Your task to perform on an android device: What's the weather going to be tomorrow? Image 0: 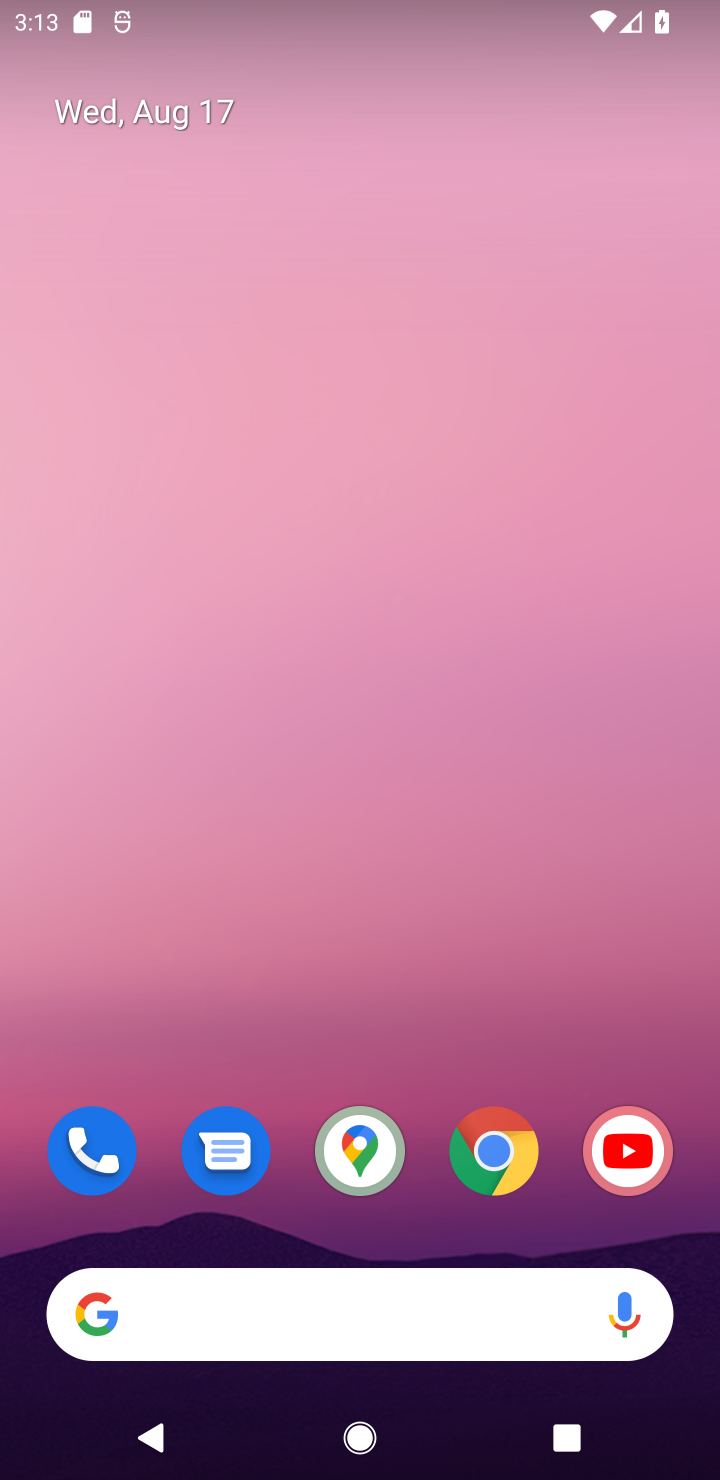
Step 0: click (284, 1310)
Your task to perform on an android device: What's the weather going to be tomorrow? Image 1: 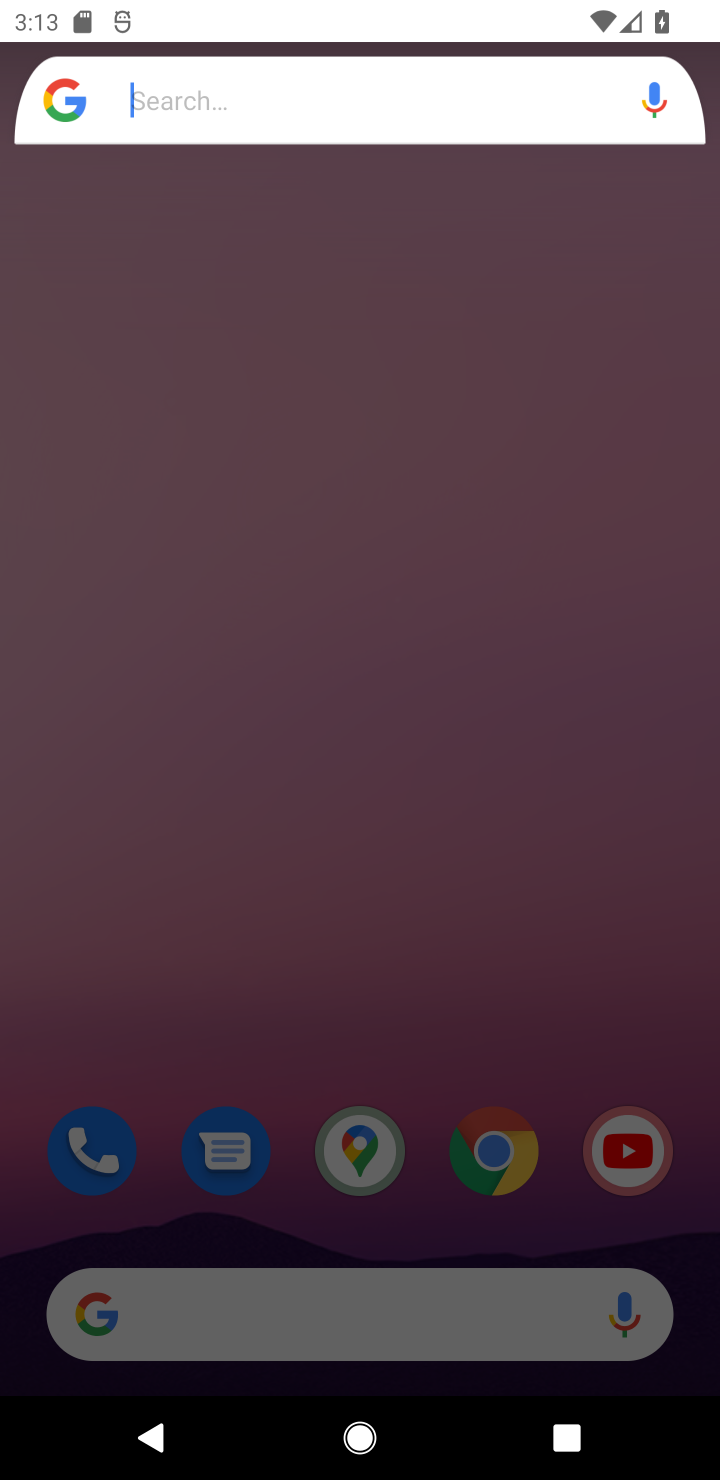
Step 1: click (284, 1310)
Your task to perform on an android device: What's the weather going to be tomorrow? Image 2: 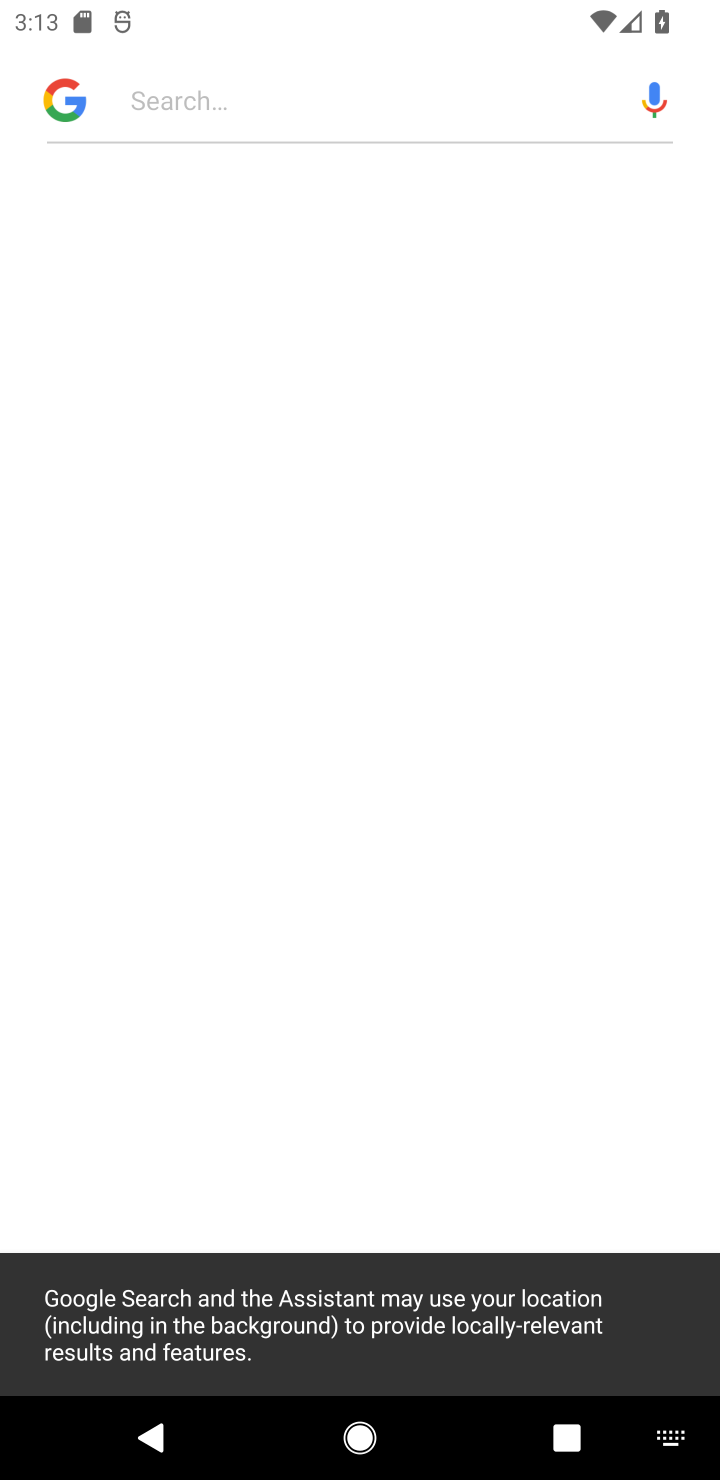
Step 2: type "weather"
Your task to perform on an android device: What's the weather going to be tomorrow? Image 3: 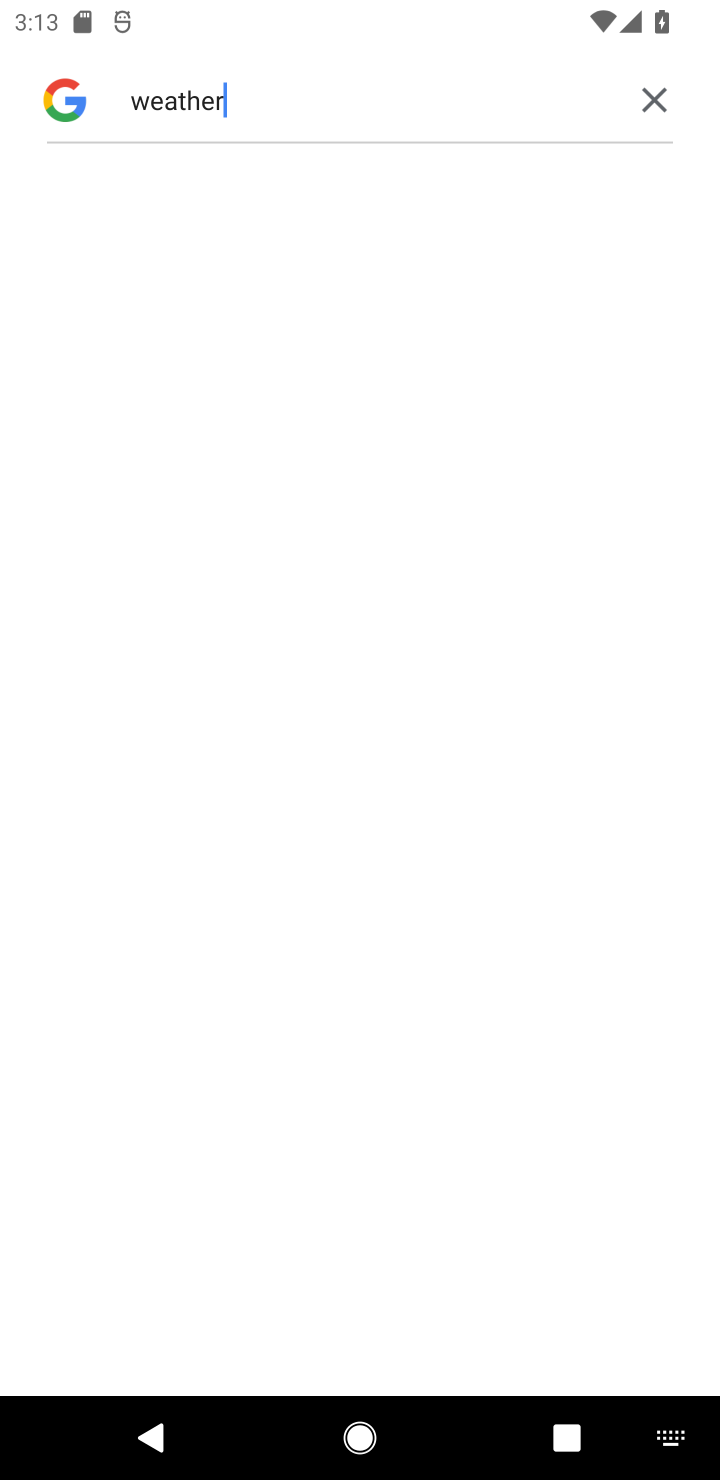
Step 3: task complete